Your task to perform on an android device: Do I have any events today? Image 0: 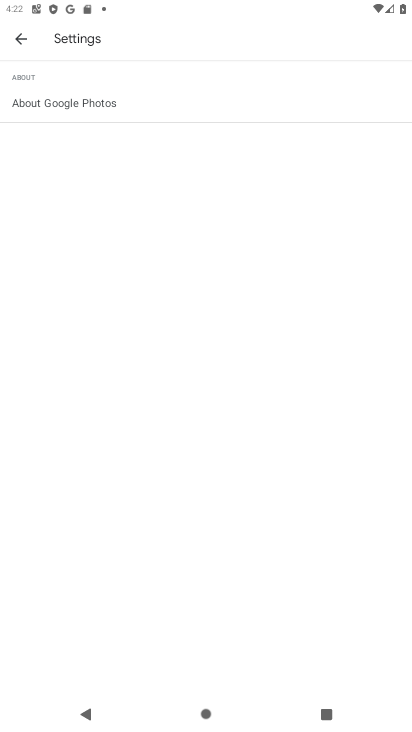
Step 0: press home button
Your task to perform on an android device: Do I have any events today? Image 1: 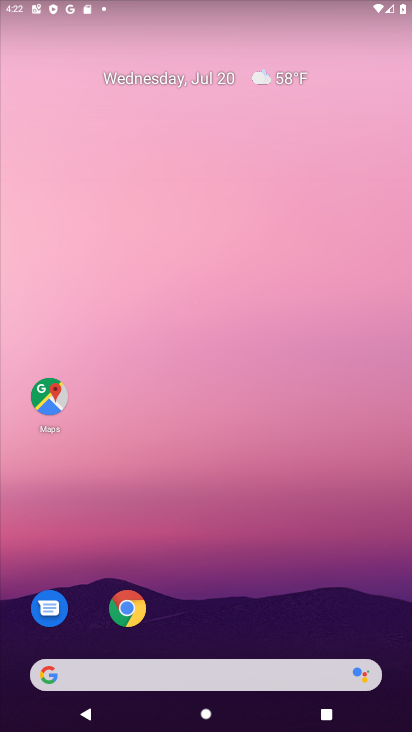
Step 1: drag from (224, 638) to (164, 117)
Your task to perform on an android device: Do I have any events today? Image 2: 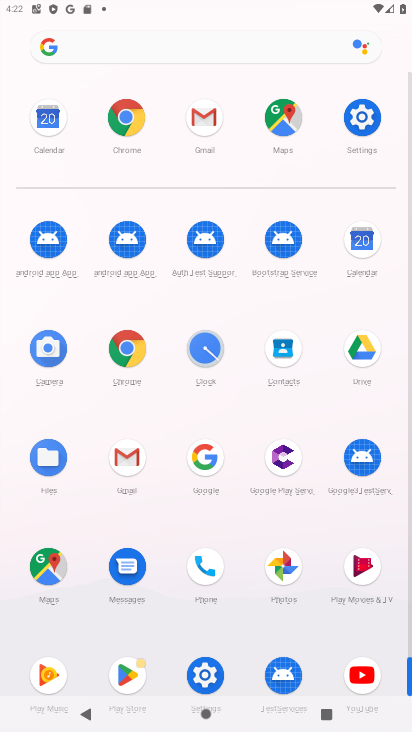
Step 2: click (353, 243)
Your task to perform on an android device: Do I have any events today? Image 3: 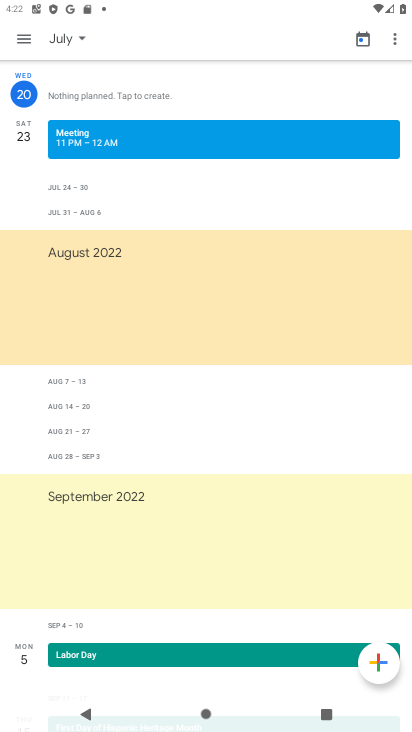
Step 3: click (27, 42)
Your task to perform on an android device: Do I have any events today? Image 4: 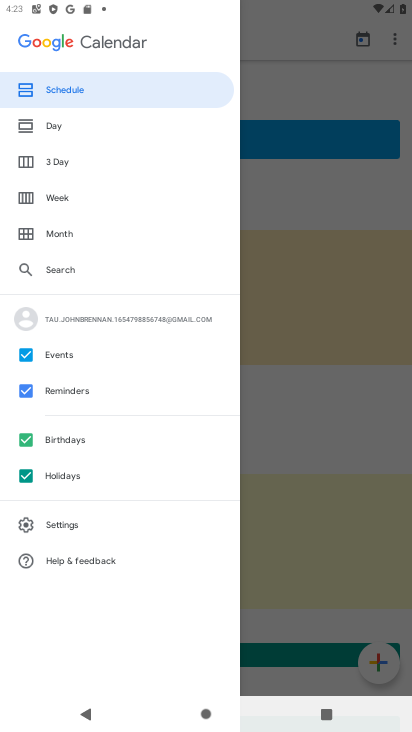
Step 4: click (81, 391)
Your task to perform on an android device: Do I have any events today? Image 5: 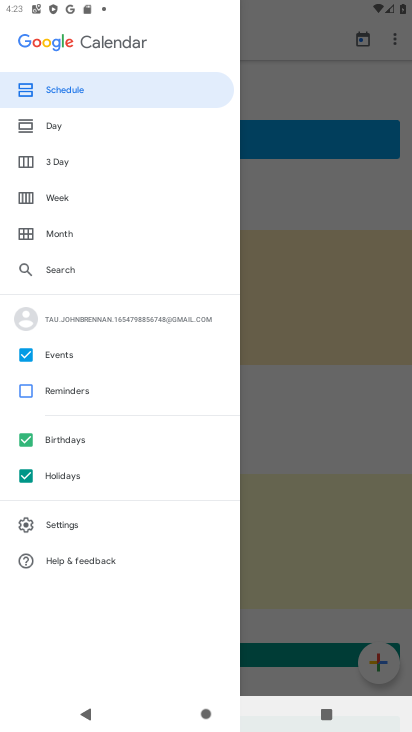
Step 5: click (74, 440)
Your task to perform on an android device: Do I have any events today? Image 6: 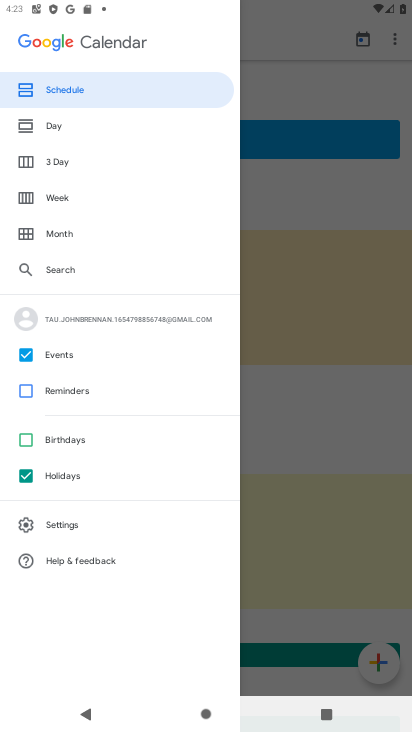
Step 6: click (77, 478)
Your task to perform on an android device: Do I have any events today? Image 7: 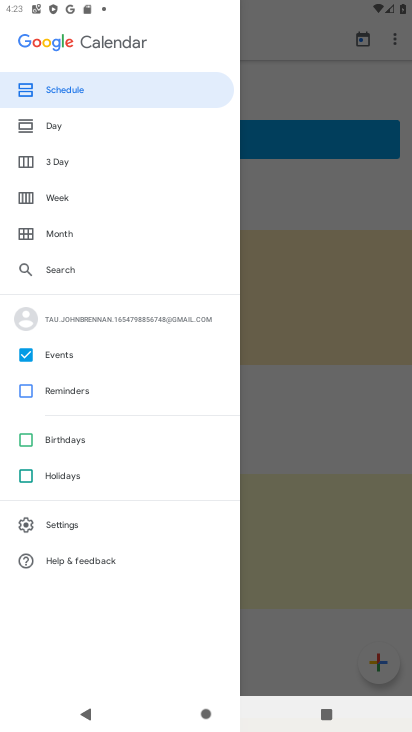
Step 7: click (60, 125)
Your task to perform on an android device: Do I have any events today? Image 8: 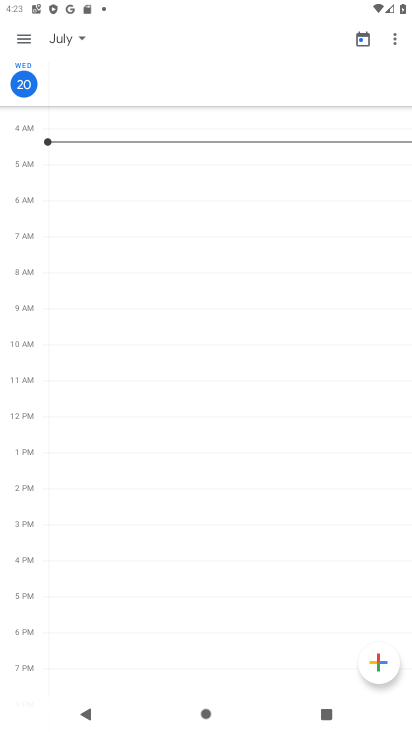
Step 8: task complete